Your task to perform on an android device: What is the news today? Image 0: 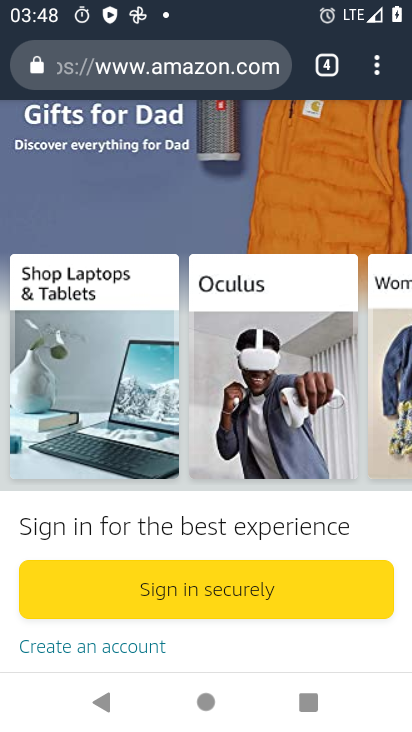
Step 0: press home button
Your task to perform on an android device: What is the news today? Image 1: 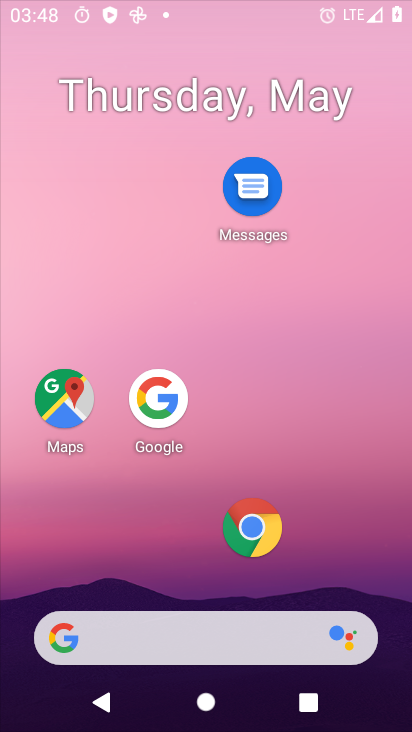
Step 1: drag from (216, 632) to (272, 58)
Your task to perform on an android device: What is the news today? Image 2: 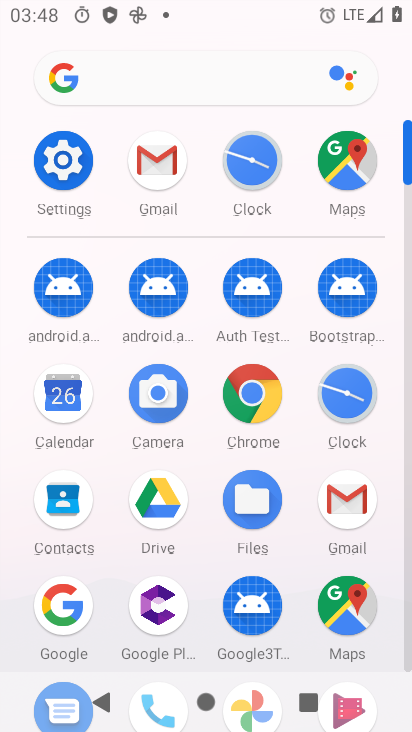
Step 2: click (158, 70)
Your task to perform on an android device: What is the news today? Image 3: 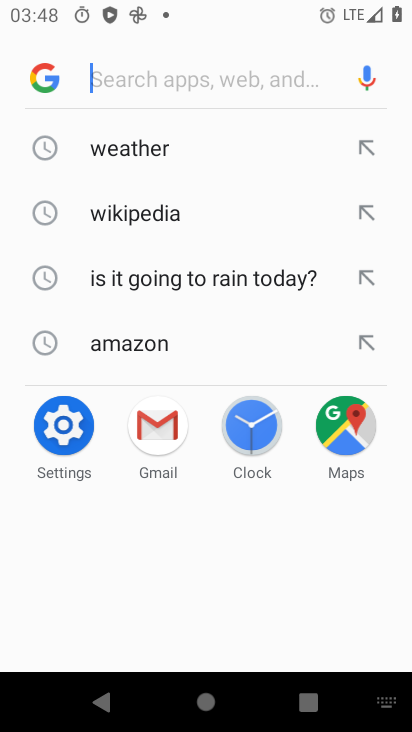
Step 3: type "news today?"
Your task to perform on an android device: What is the news today? Image 4: 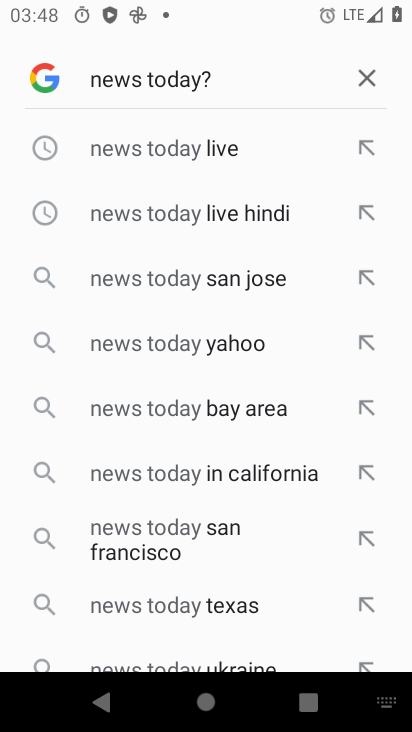
Step 4: click (166, 143)
Your task to perform on an android device: What is the news today? Image 5: 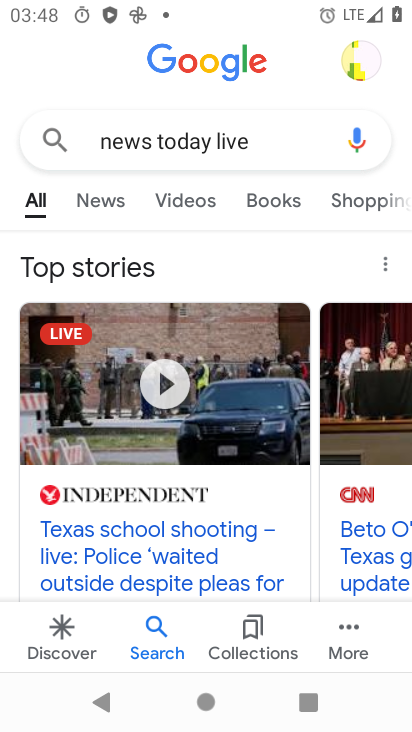
Step 5: task complete